Your task to perform on an android device: Open the Play Movies app and select the watchlist tab. Image 0: 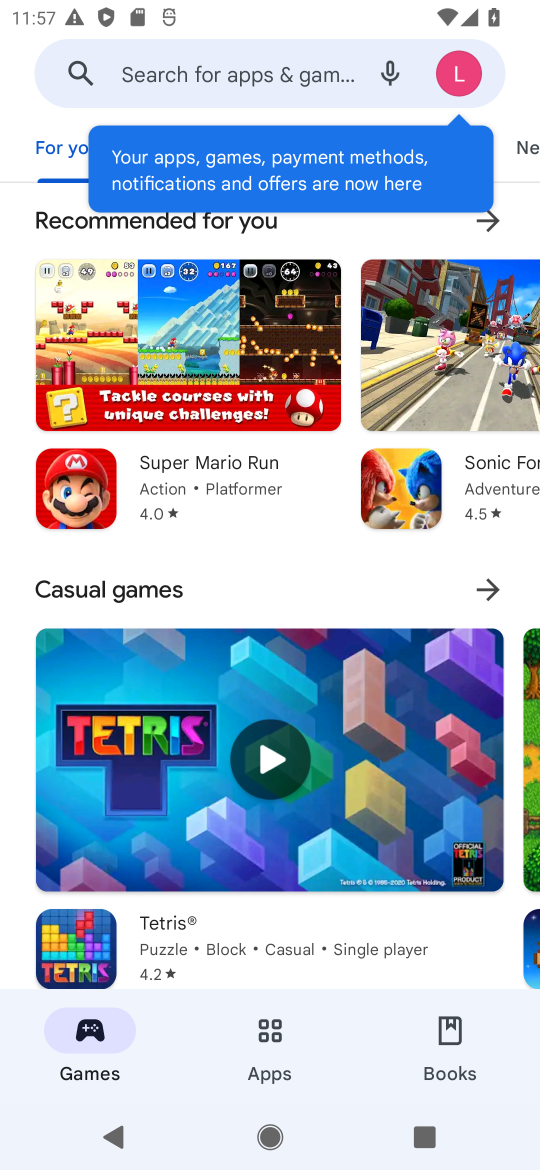
Step 0: press back button
Your task to perform on an android device: Open the Play Movies app and select the watchlist tab. Image 1: 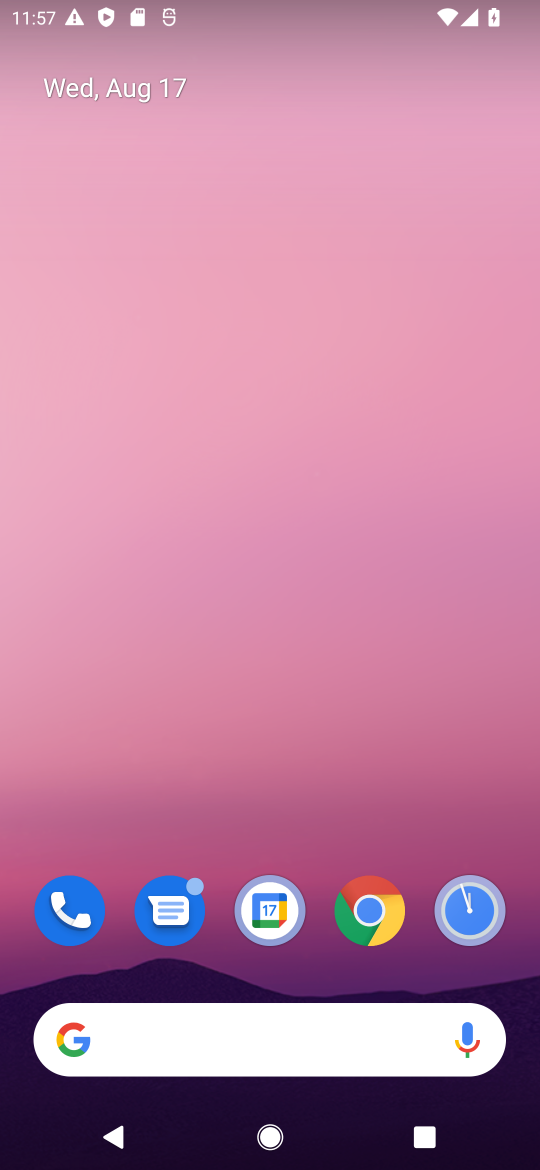
Step 1: task complete